Your task to perform on an android device: check data usage Image 0: 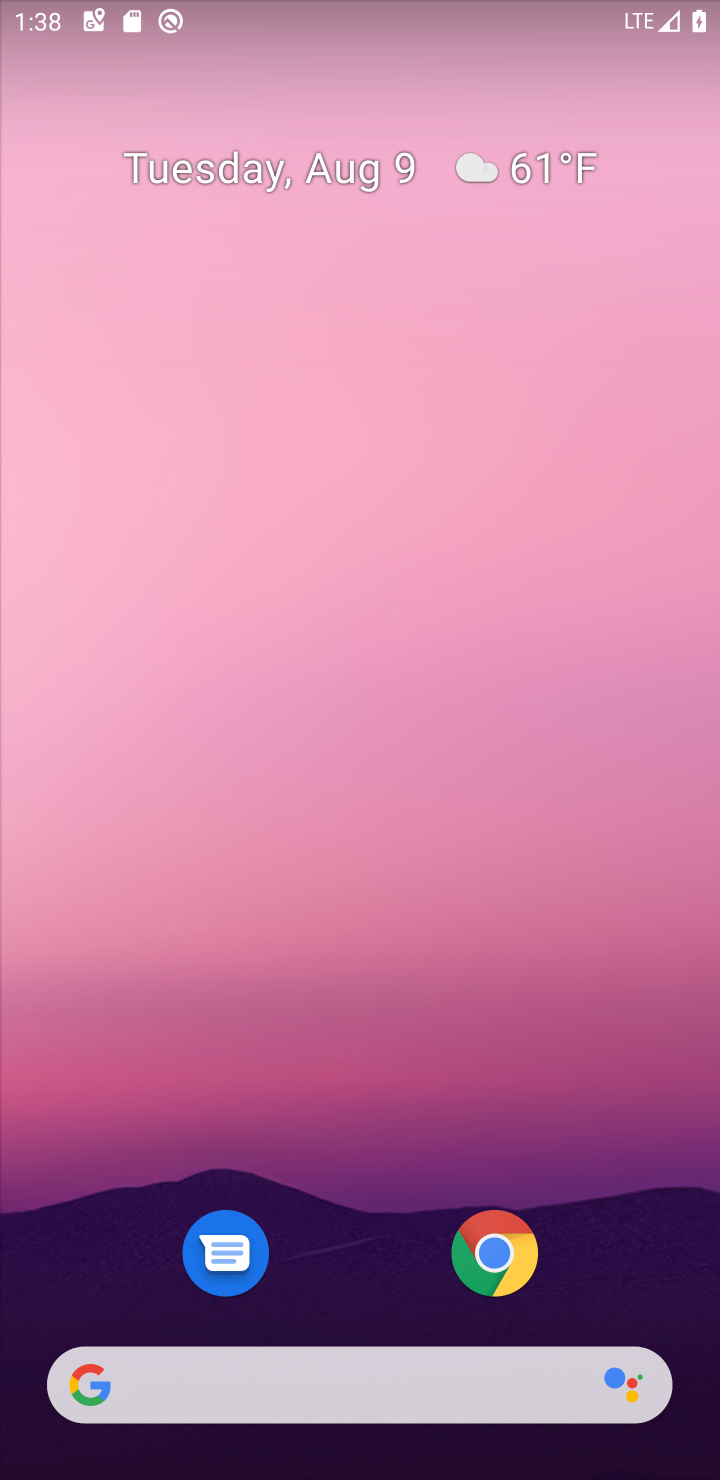
Step 0: drag from (581, 1190) to (172, 12)
Your task to perform on an android device: check data usage Image 1: 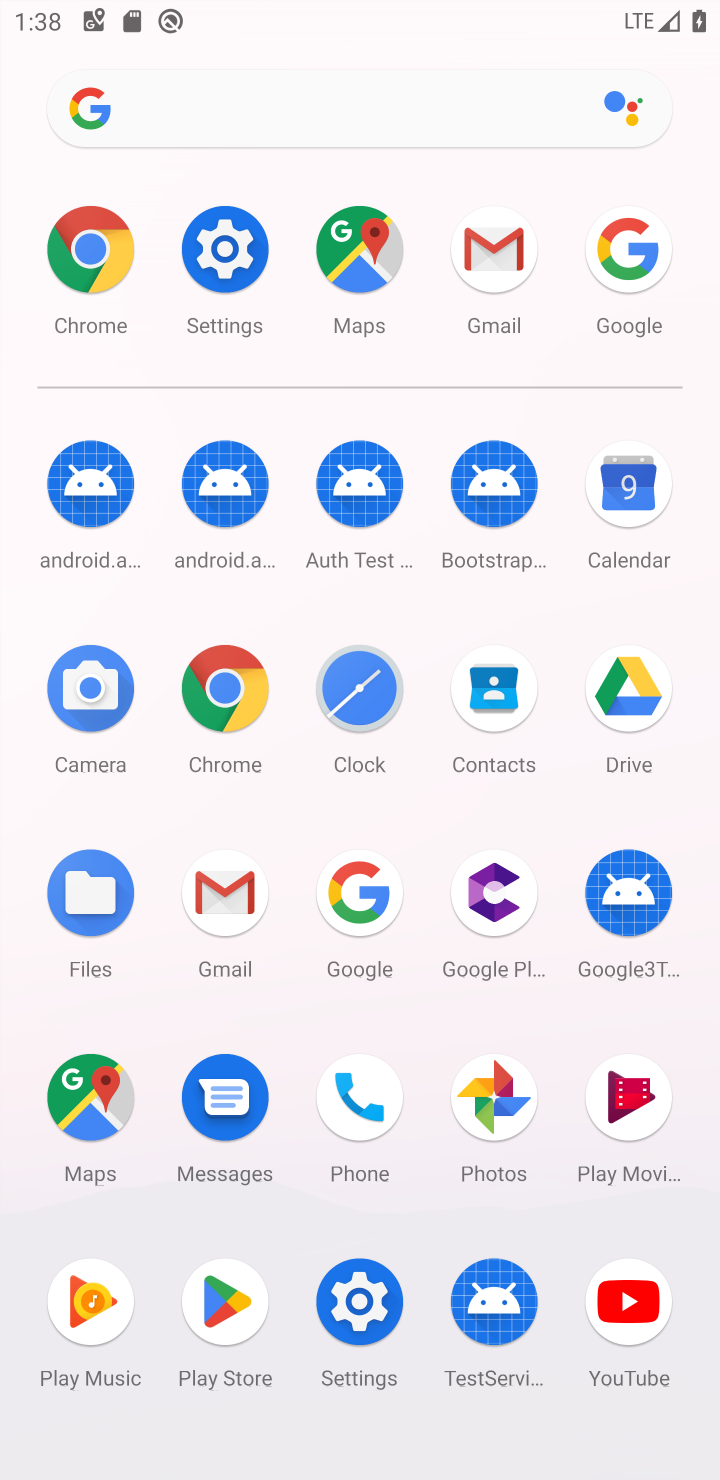
Step 1: click (389, 1334)
Your task to perform on an android device: check data usage Image 2: 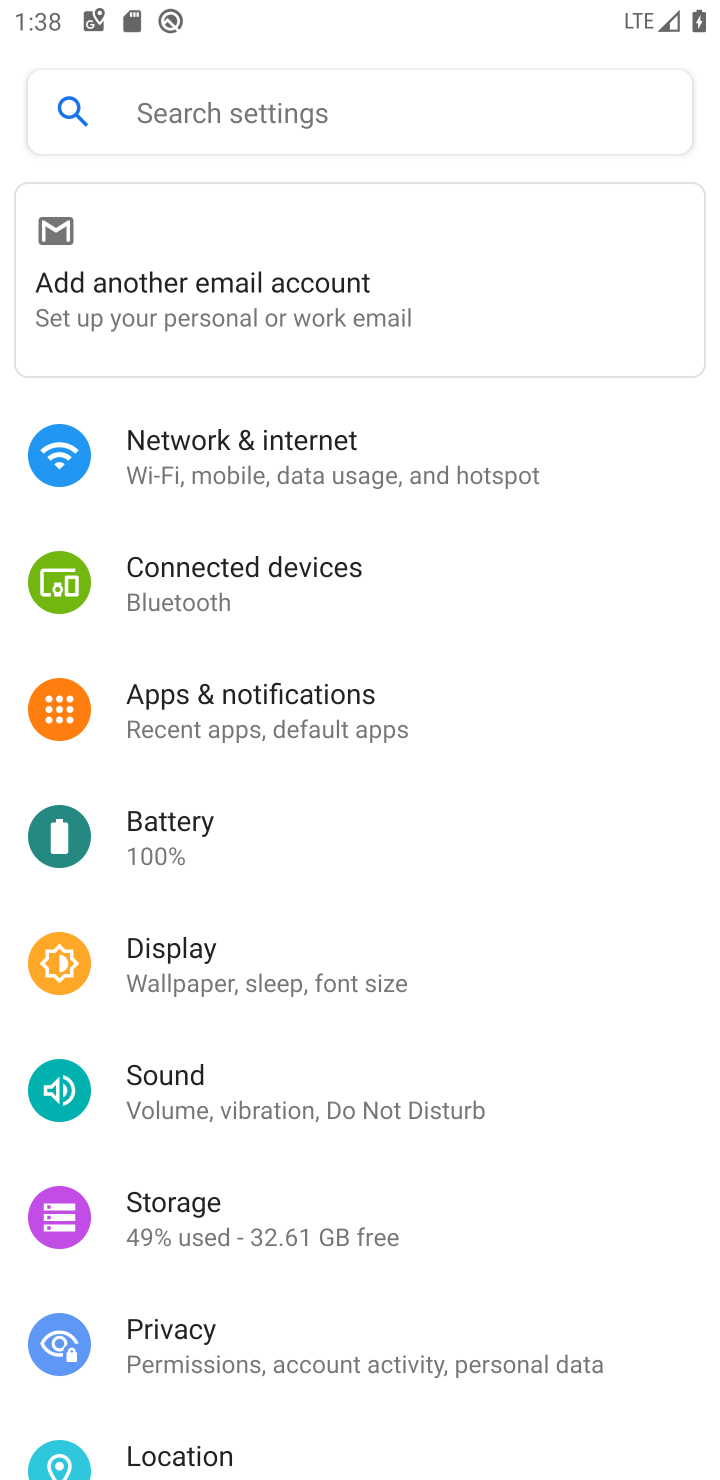
Step 2: click (103, 464)
Your task to perform on an android device: check data usage Image 3: 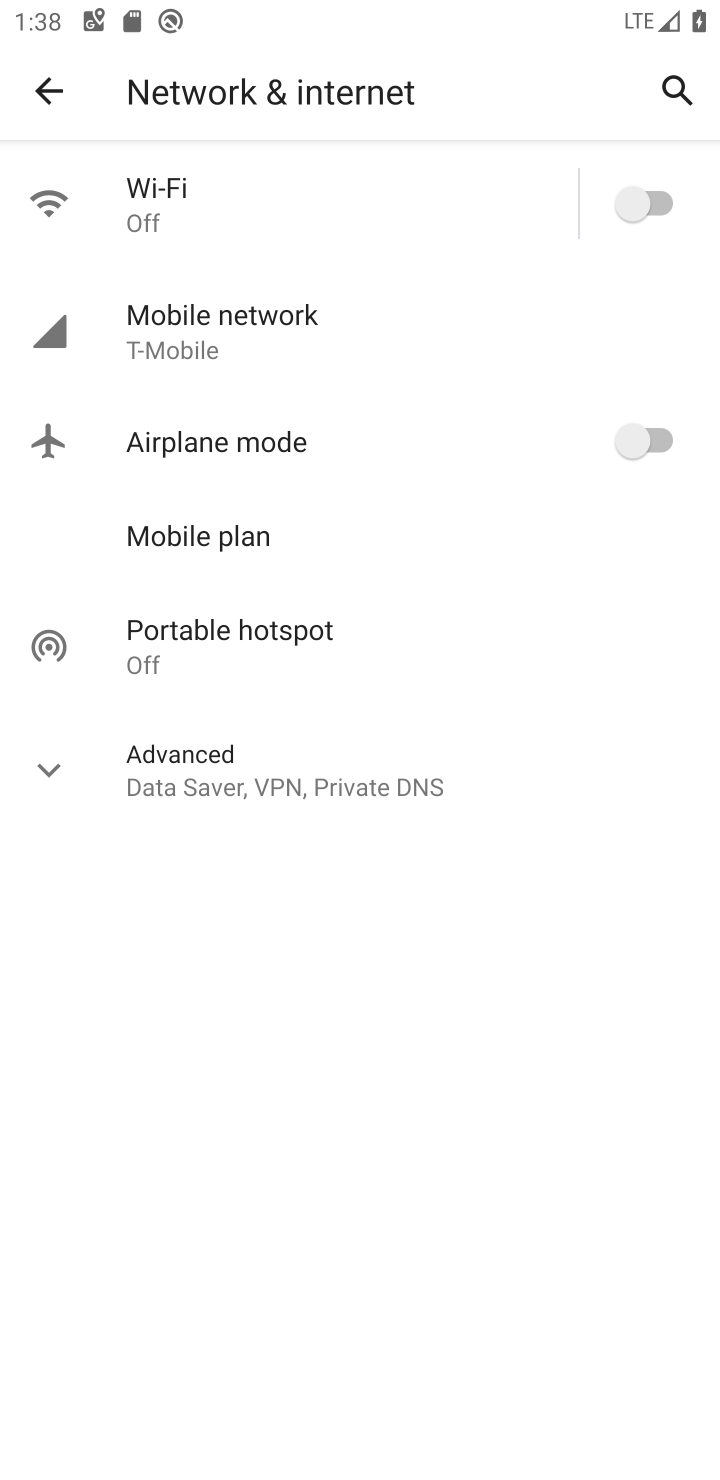
Step 3: click (223, 315)
Your task to perform on an android device: check data usage Image 4: 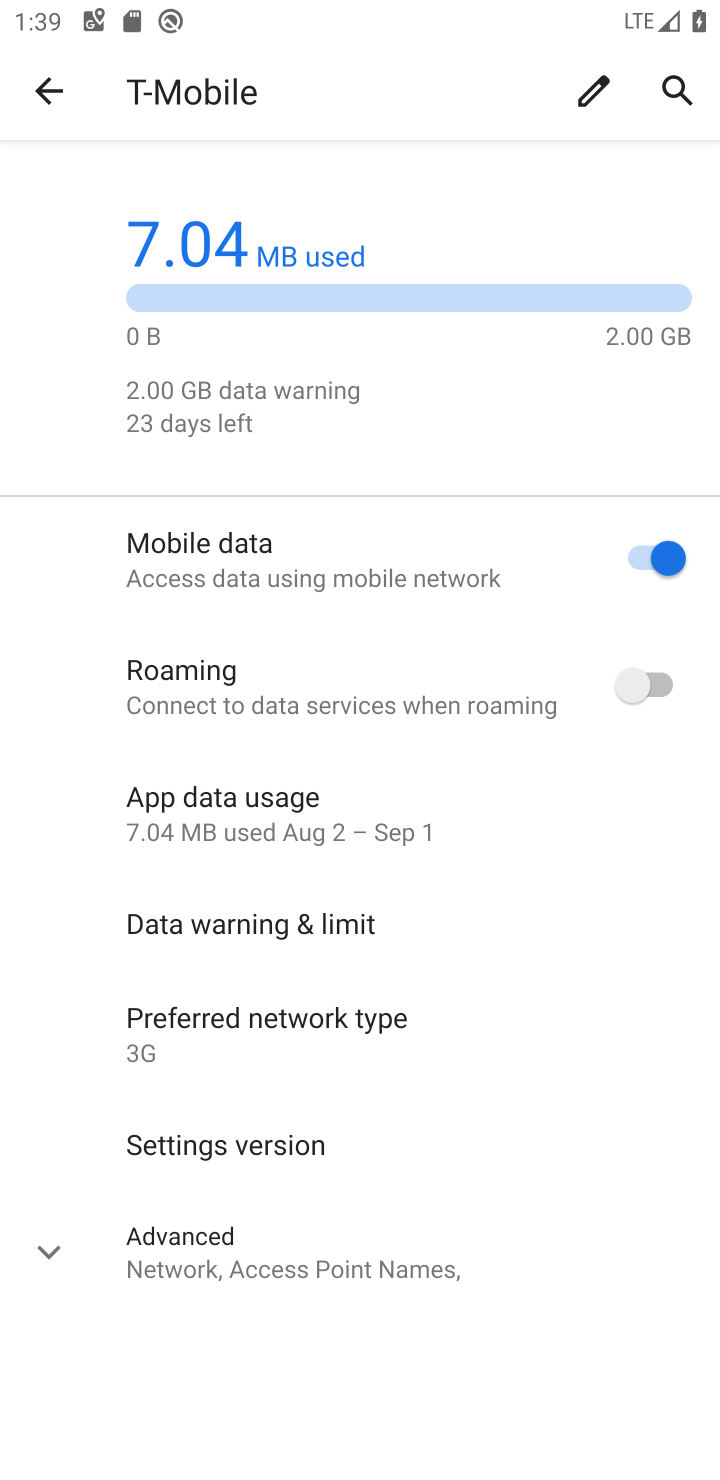
Step 4: click (187, 869)
Your task to perform on an android device: check data usage Image 5: 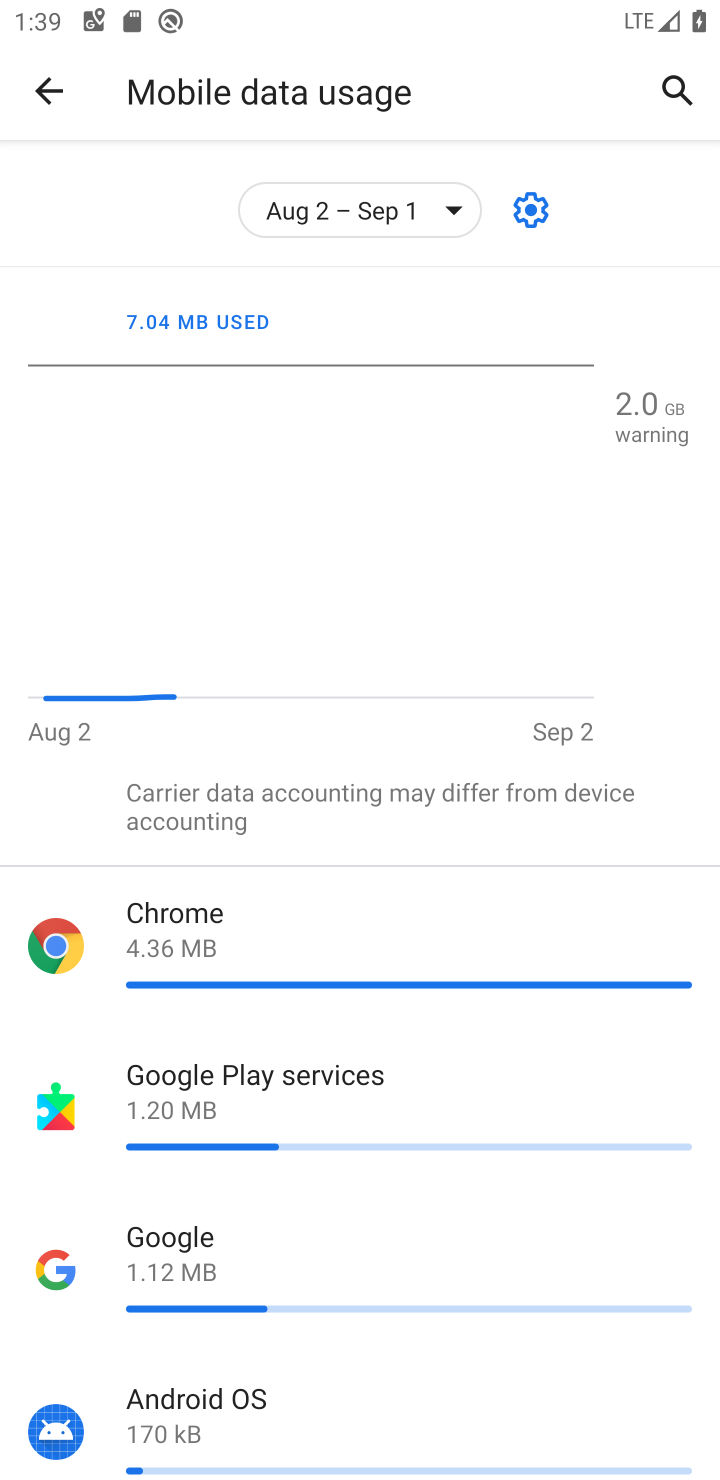
Step 5: task complete